Your task to perform on an android device: open chrome and create a bookmark for the current page Image 0: 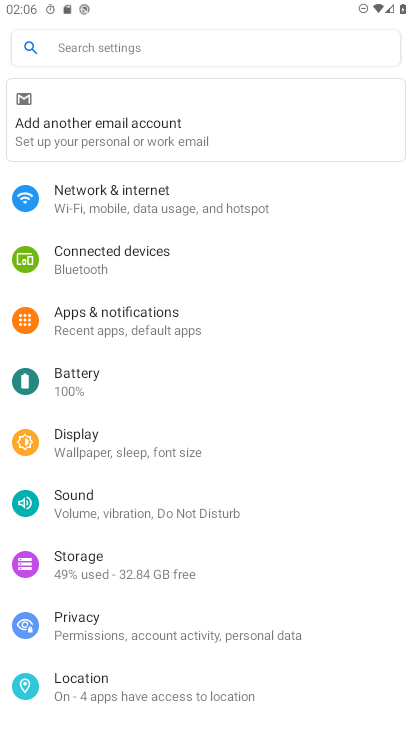
Step 0: press home button
Your task to perform on an android device: open chrome and create a bookmark for the current page Image 1: 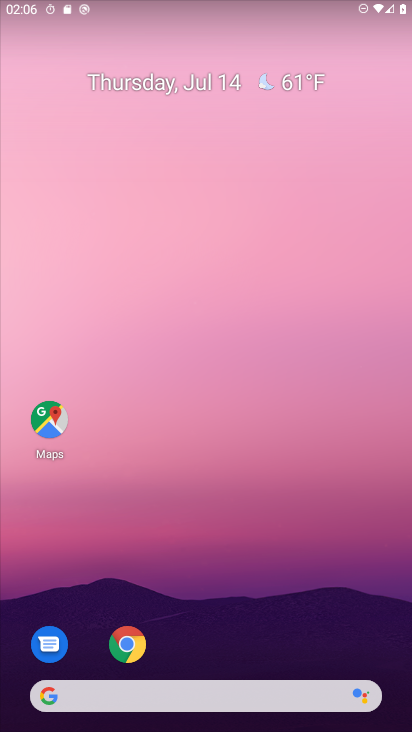
Step 1: click (125, 644)
Your task to perform on an android device: open chrome and create a bookmark for the current page Image 2: 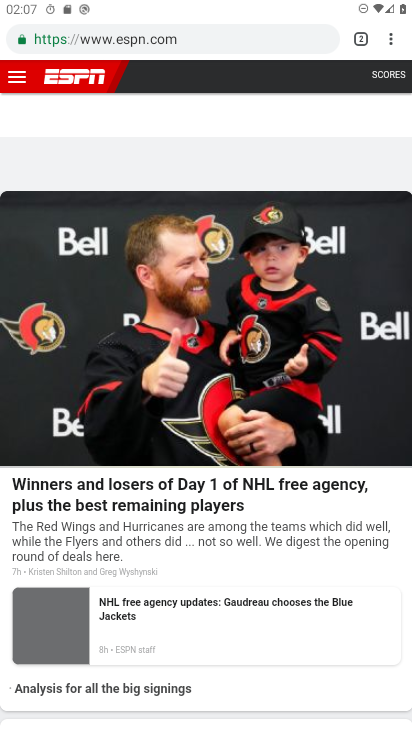
Step 2: task complete